Your task to perform on an android device: Go to Google maps Image 0: 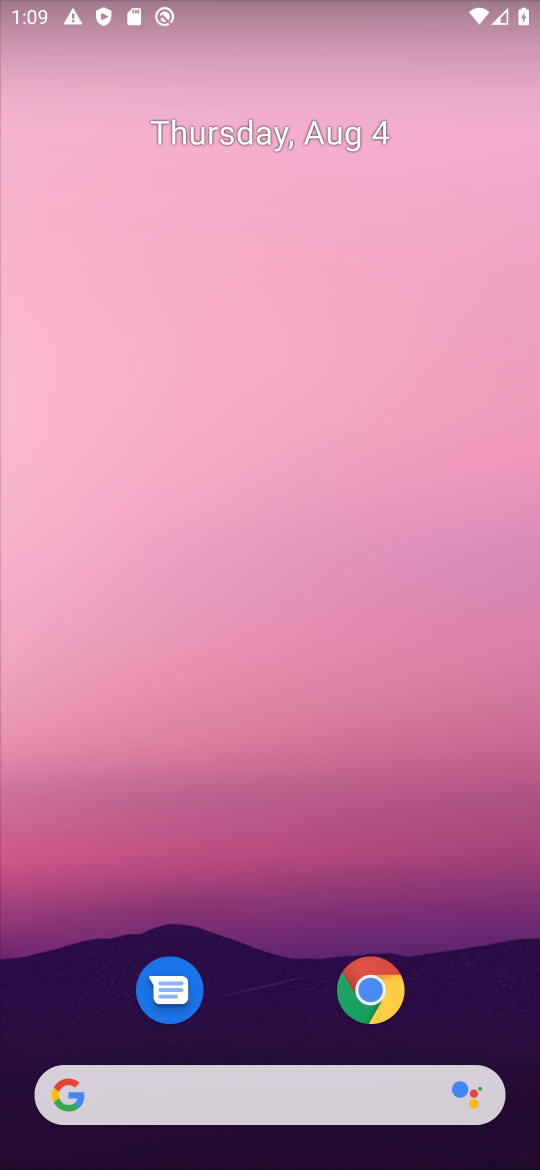
Step 0: drag from (335, 1060) to (337, 330)
Your task to perform on an android device: Go to Google maps Image 1: 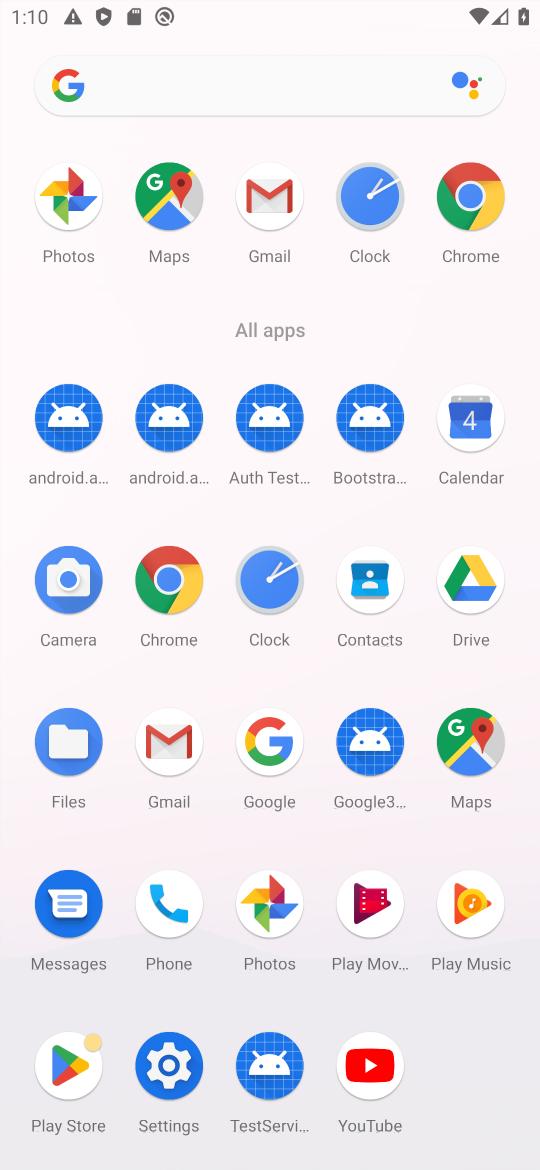
Step 1: click (456, 752)
Your task to perform on an android device: Go to Google maps Image 2: 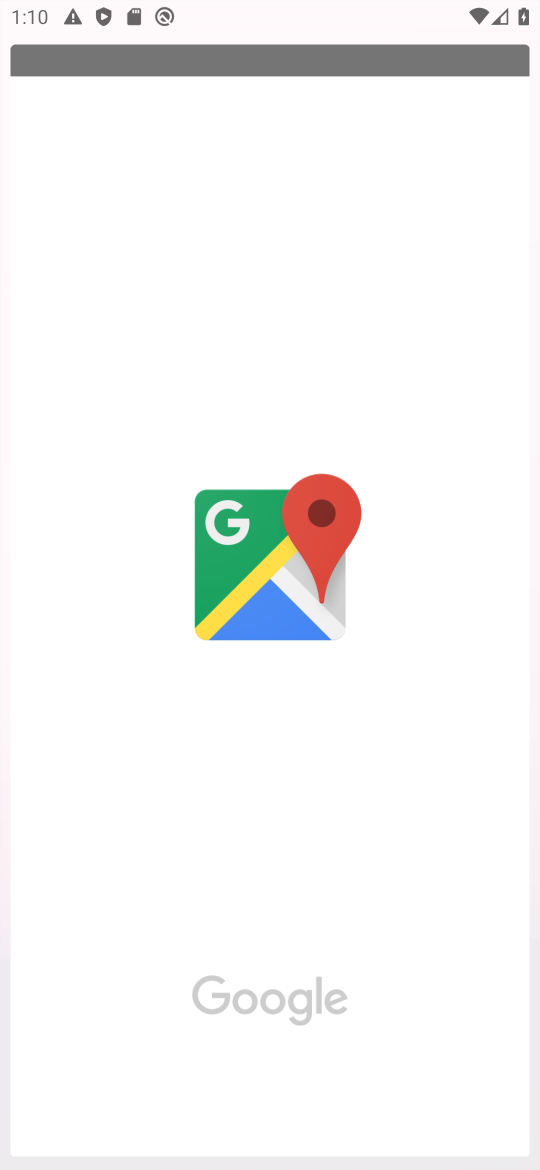
Step 2: task complete